Your task to perform on an android device: Open Google Maps and go to "Timeline" Image 0: 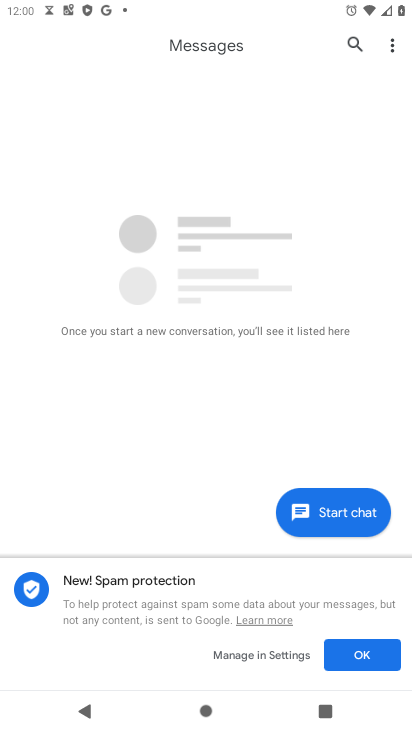
Step 0: press home button
Your task to perform on an android device: Open Google Maps and go to "Timeline" Image 1: 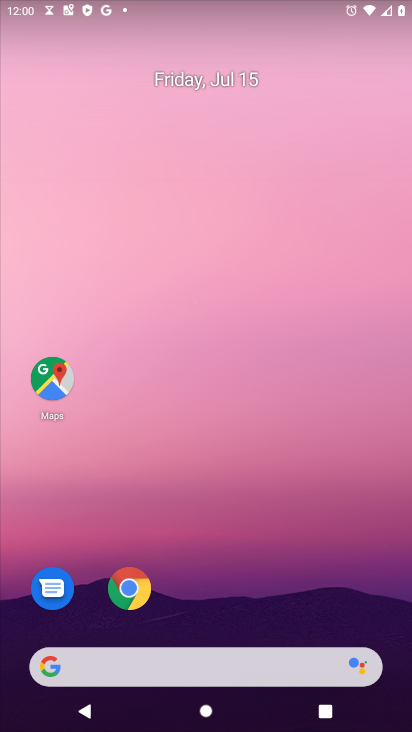
Step 1: click (57, 386)
Your task to perform on an android device: Open Google Maps and go to "Timeline" Image 2: 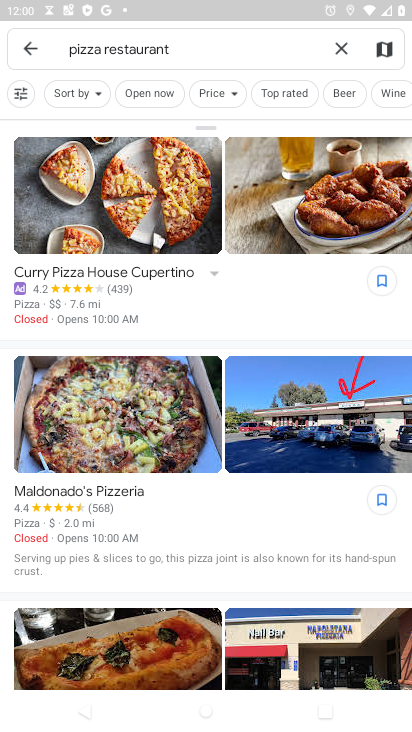
Step 2: click (28, 46)
Your task to perform on an android device: Open Google Maps and go to "Timeline" Image 3: 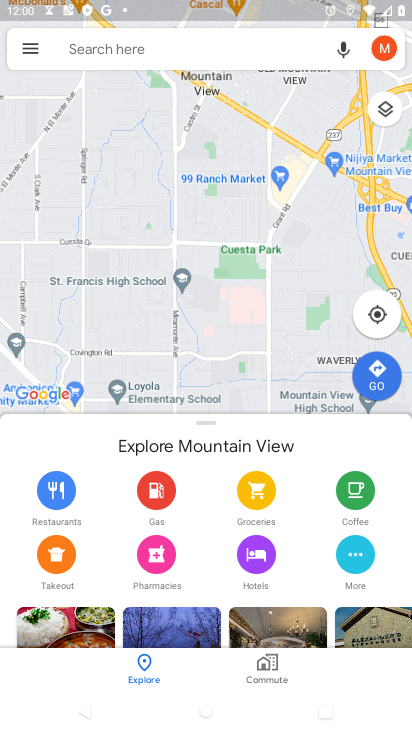
Step 3: click (27, 46)
Your task to perform on an android device: Open Google Maps and go to "Timeline" Image 4: 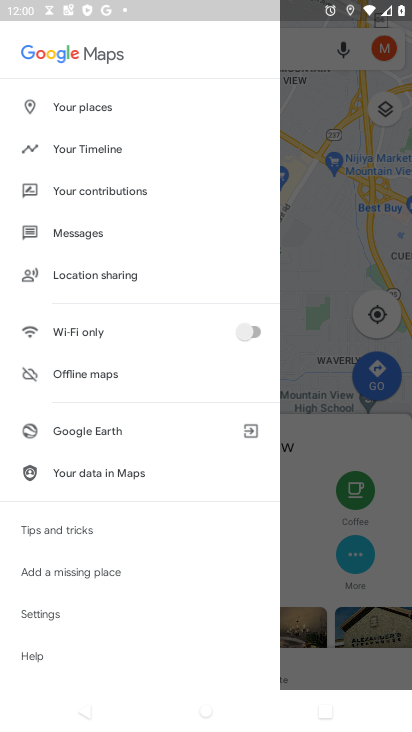
Step 4: click (78, 149)
Your task to perform on an android device: Open Google Maps and go to "Timeline" Image 5: 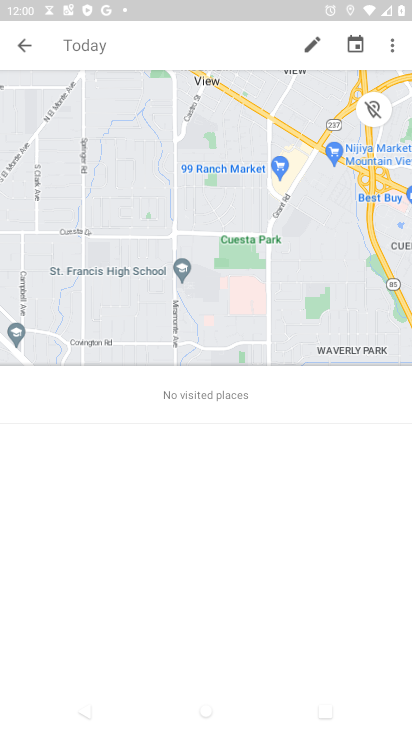
Step 5: task complete